Your task to perform on an android device: Open Google Maps Image 0: 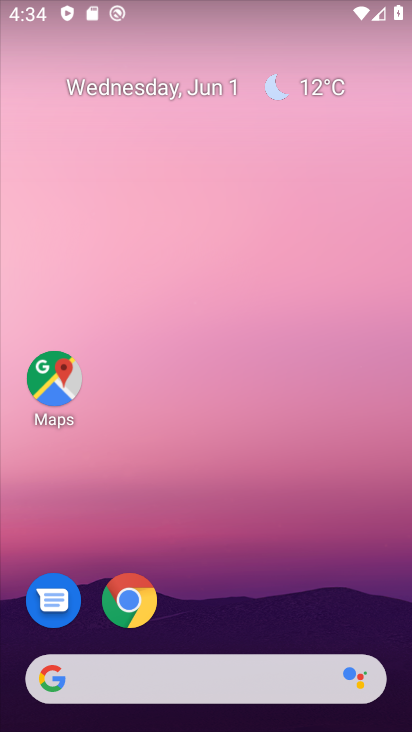
Step 0: click (51, 370)
Your task to perform on an android device: Open Google Maps Image 1: 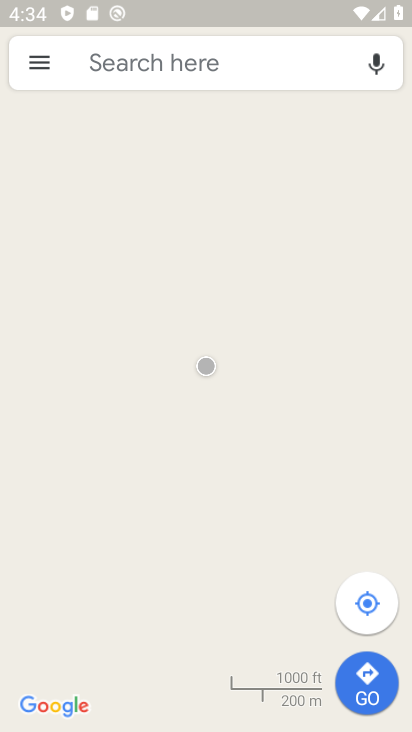
Step 1: task complete